Your task to perform on an android device: set the stopwatch Image 0: 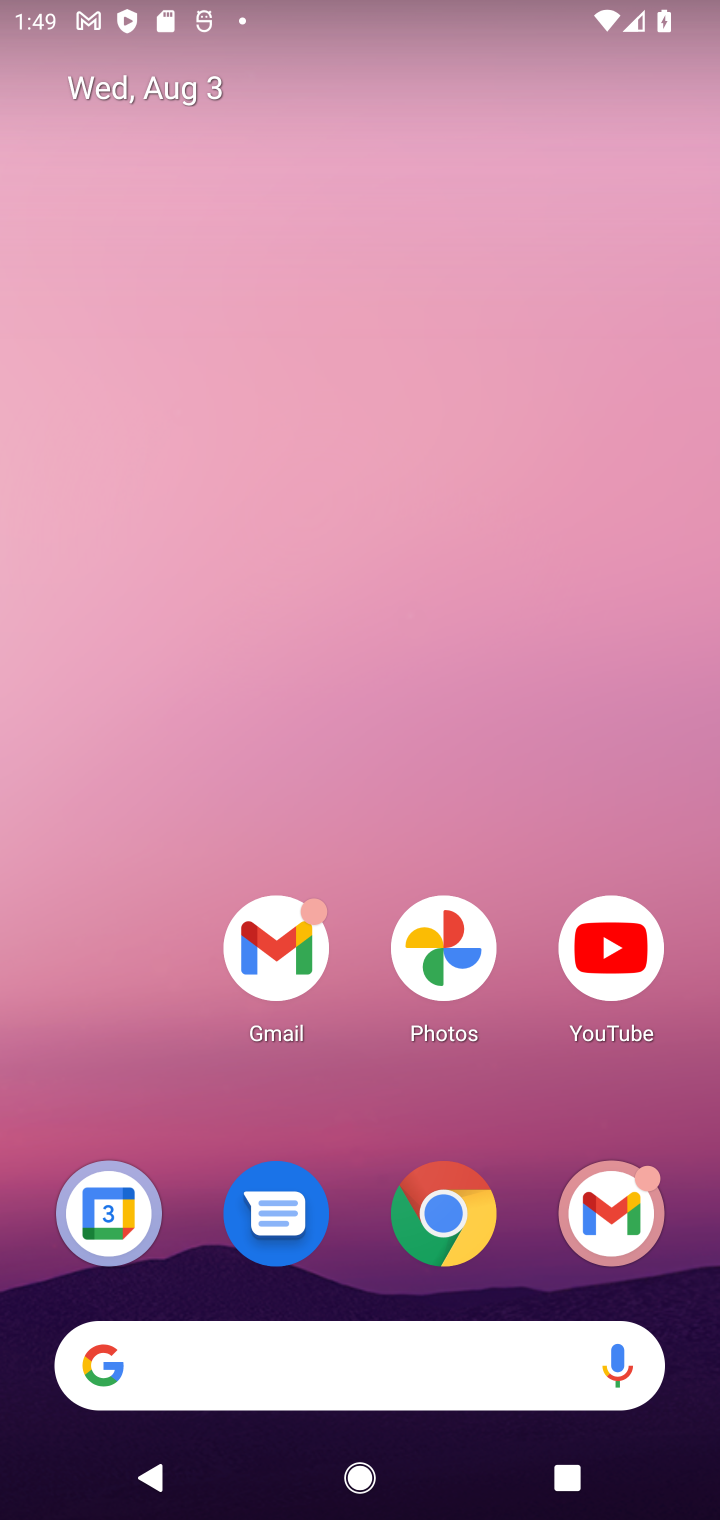
Step 0: drag from (294, 1014) to (242, 56)
Your task to perform on an android device: set the stopwatch Image 1: 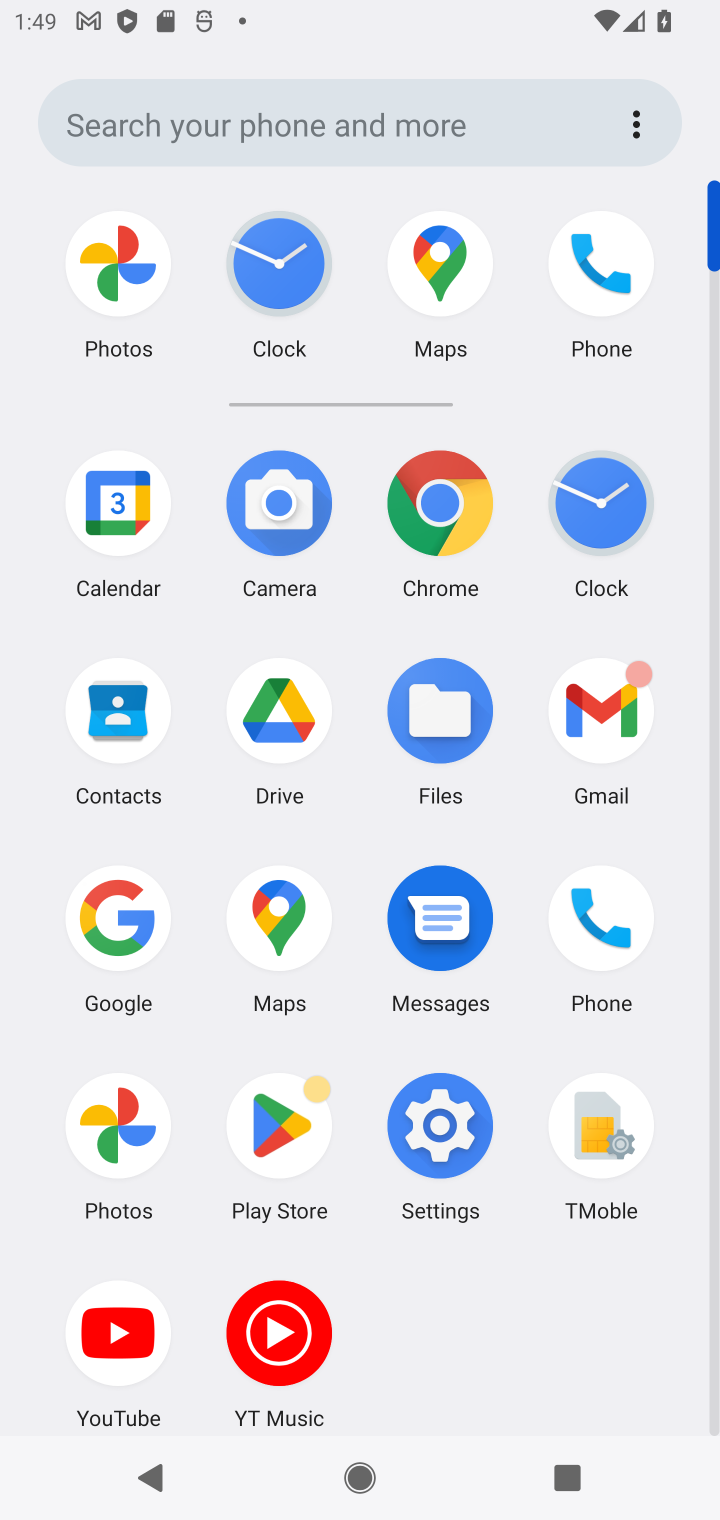
Step 1: click (587, 508)
Your task to perform on an android device: set the stopwatch Image 2: 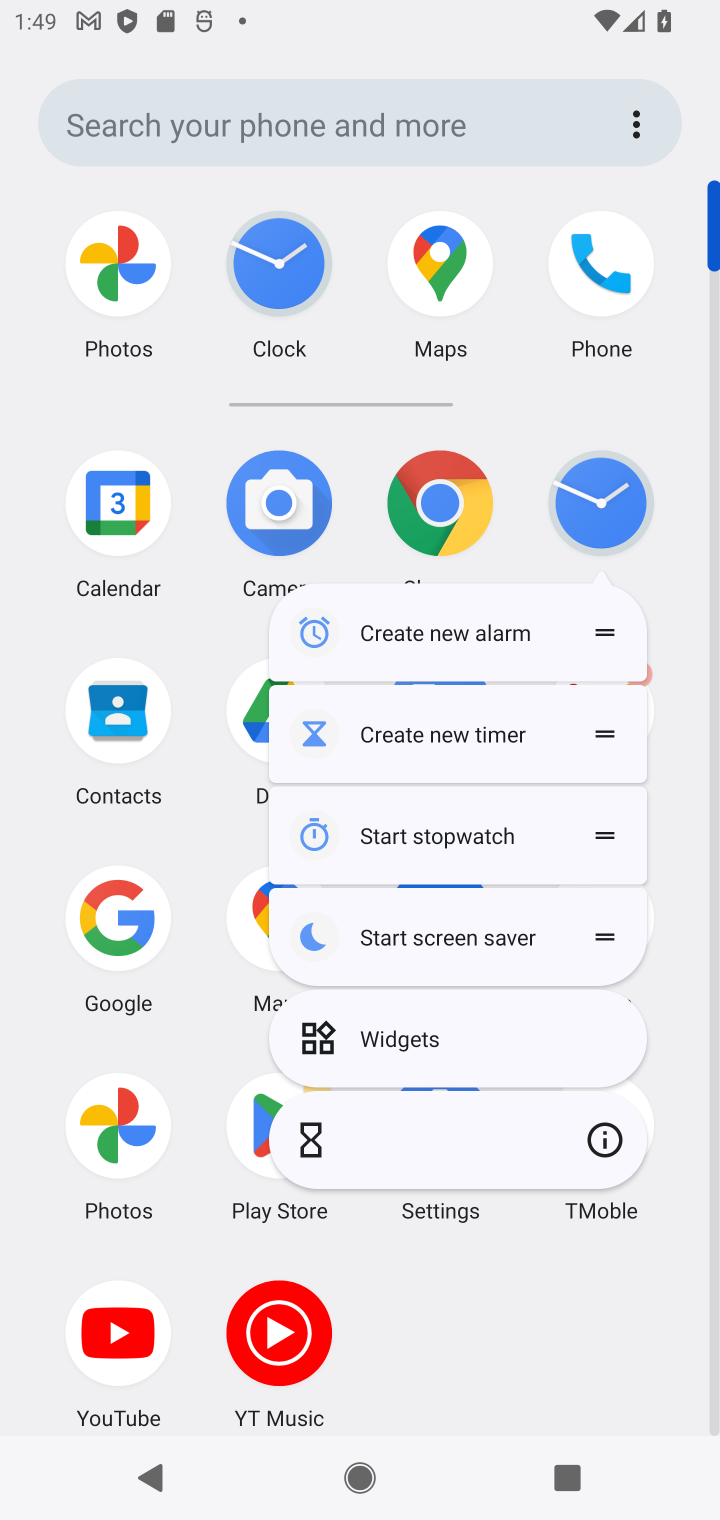
Step 2: click (592, 504)
Your task to perform on an android device: set the stopwatch Image 3: 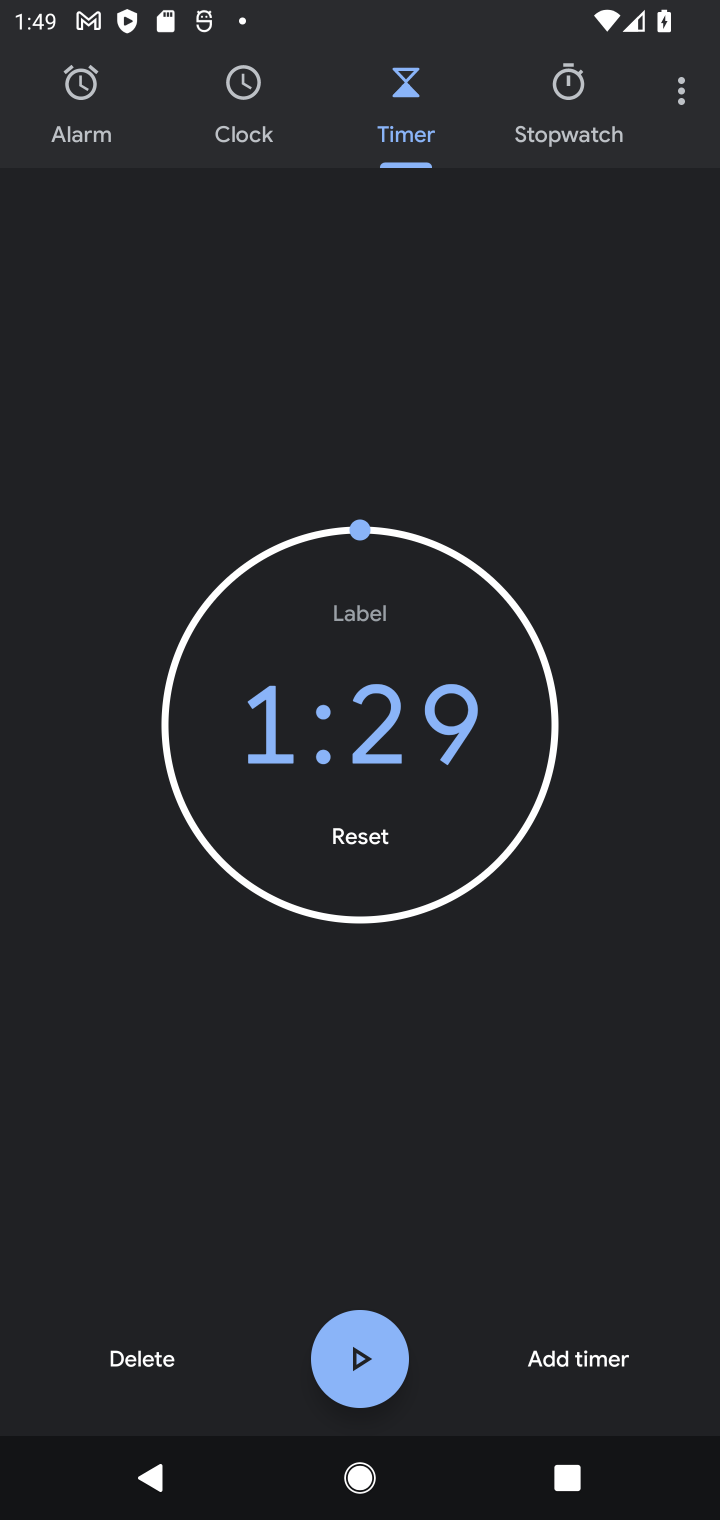
Step 3: click (581, 93)
Your task to perform on an android device: set the stopwatch Image 4: 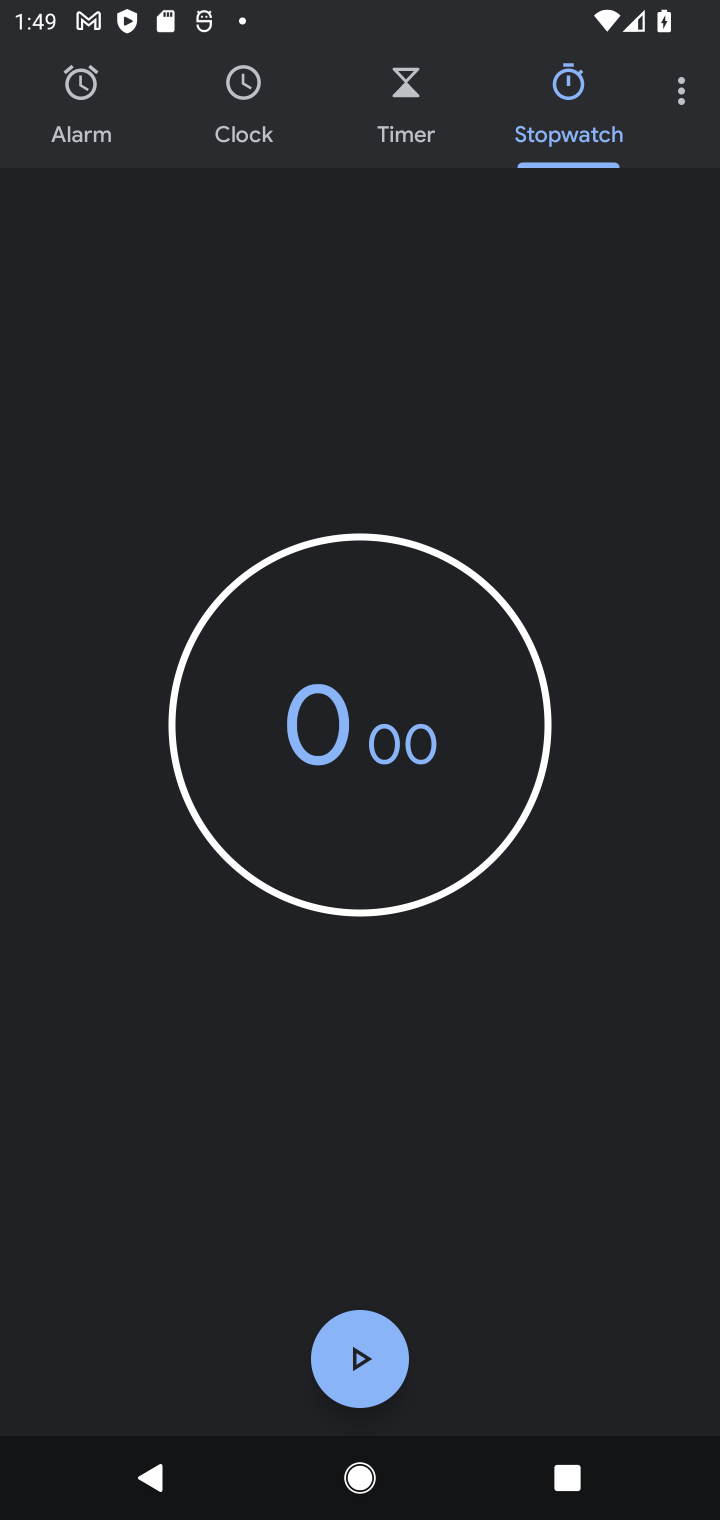
Step 4: click (370, 1339)
Your task to perform on an android device: set the stopwatch Image 5: 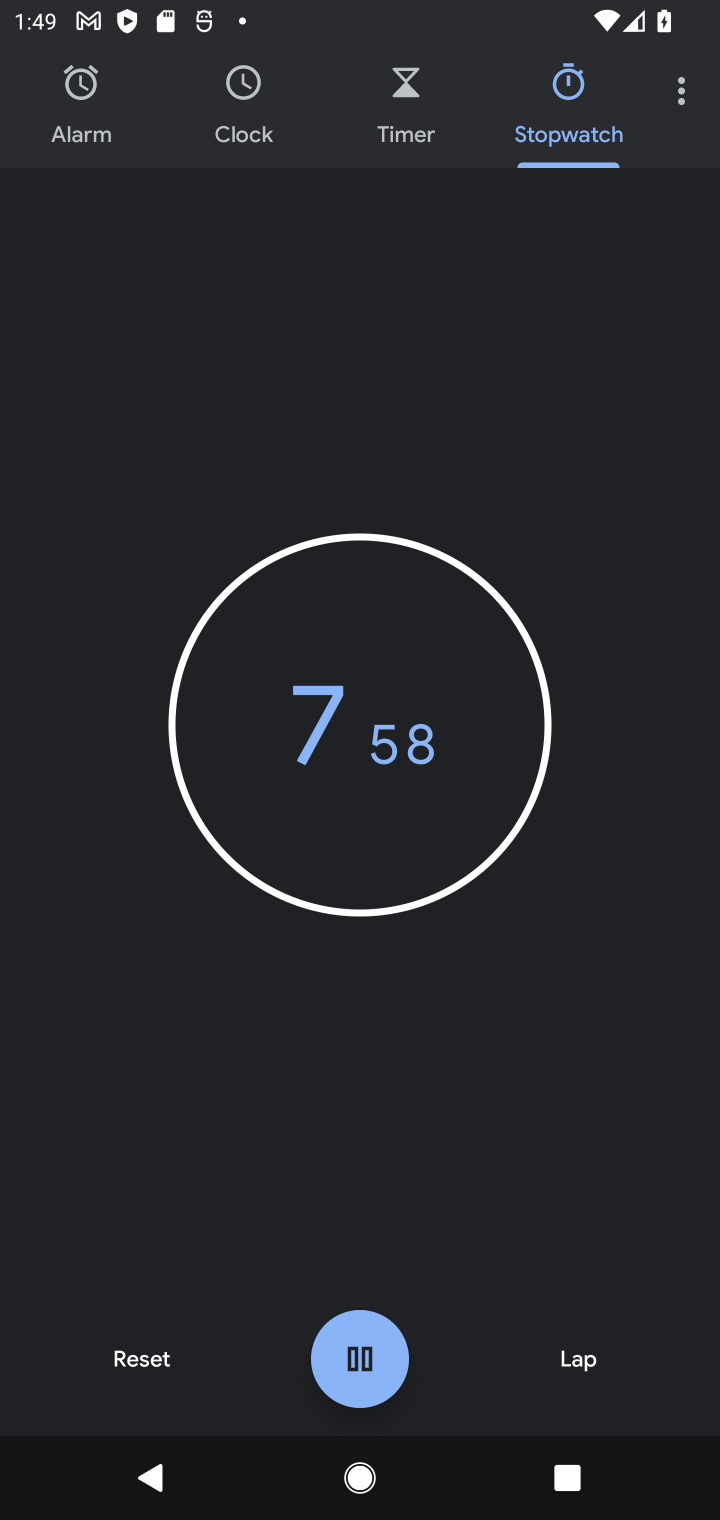
Step 5: task complete